Your task to perform on an android device: visit the assistant section in the google photos Image 0: 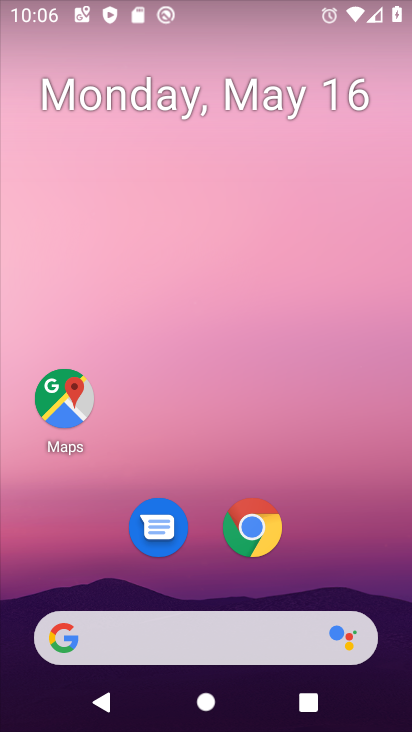
Step 0: drag from (374, 598) to (389, 6)
Your task to perform on an android device: visit the assistant section in the google photos Image 1: 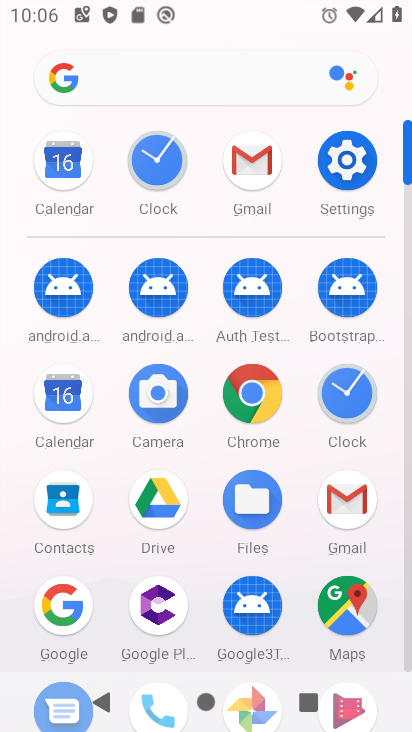
Step 1: drag from (408, 593) to (408, 559)
Your task to perform on an android device: visit the assistant section in the google photos Image 2: 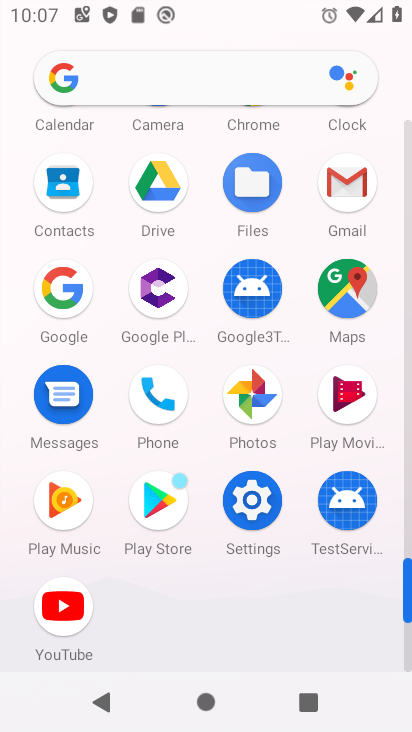
Step 2: click (258, 399)
Your task to perform on an android device: visit the assistant section in the google photos Image 3: 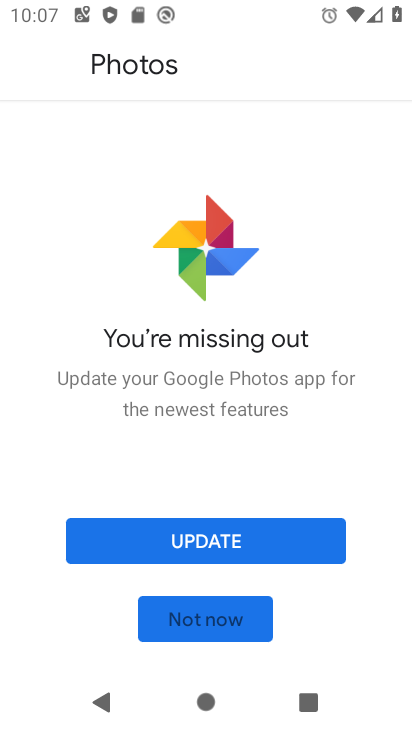
Step 3: click (208, 630)
Your task to perform on an android device: visit the assistant section in the google photos Image 4: 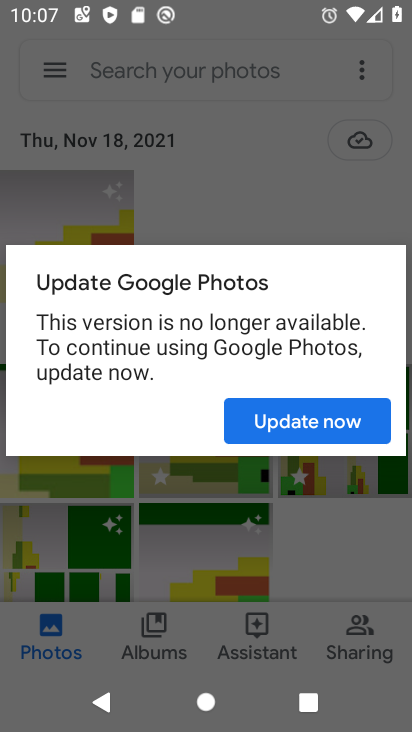
Step 4: click (290, 426)
Your task to perform on an android device: visit the assistant section in the google photos Image 5: 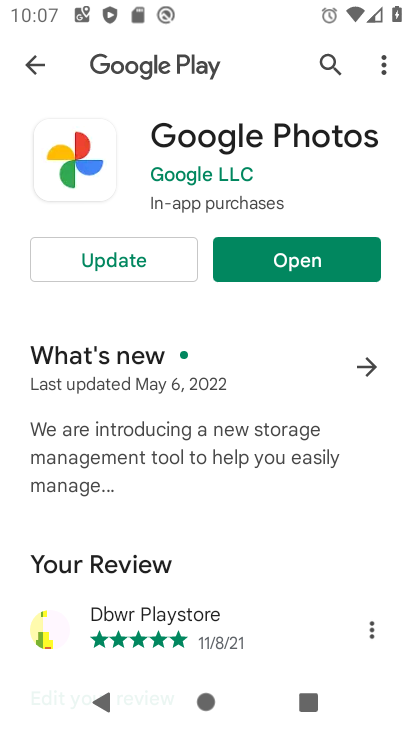
Step 5: click (266, 266)
Your task to perform on an android device: visit the assistant section in the google photos Image 6: 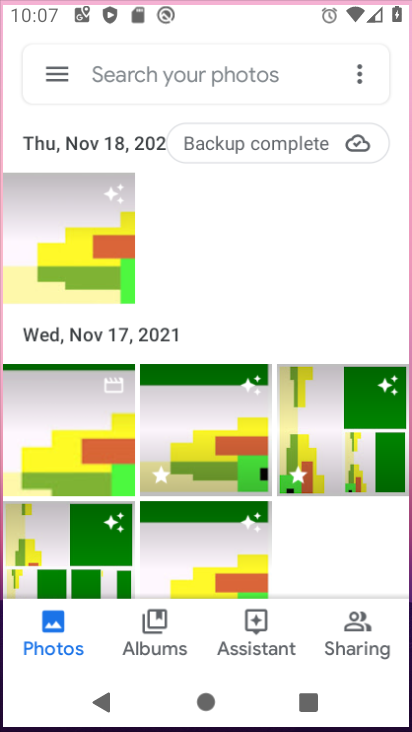
Step 6: click (294, 266)
Your task to perform on an android device: visit the assistant section in the google photos Image 7: 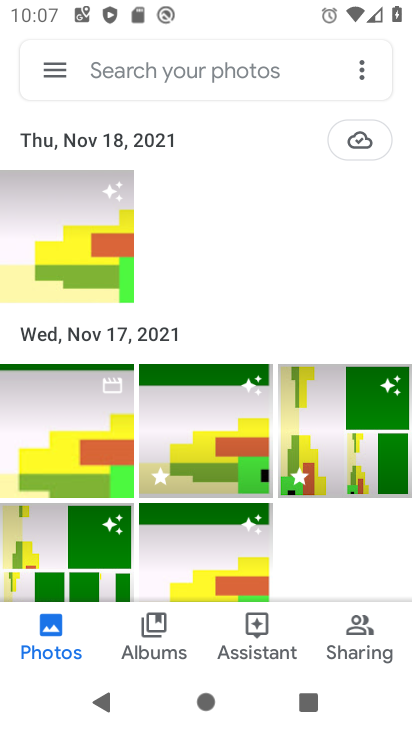
Step 7: click (260, 647)
Your task to perform on an android device: visit the assistant section in the google photos Image 8: 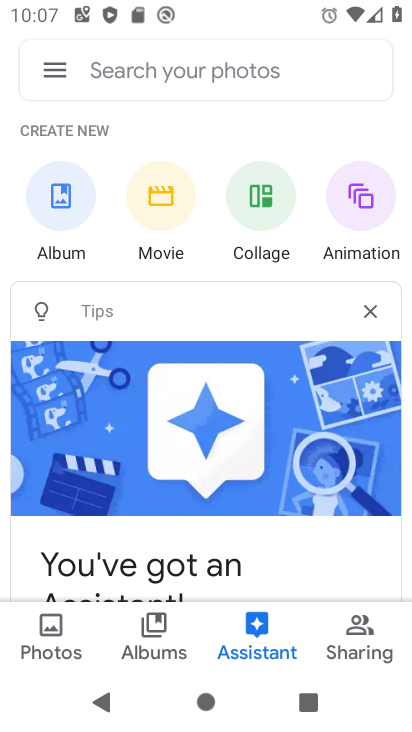
Step 8: task complete